Your task to perform on an android device: manage bookmarks in the chrome app Image 0: 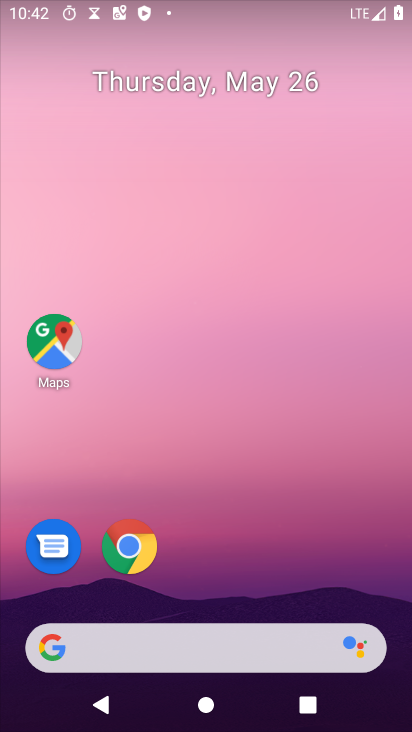
Step 0: drag from (308, 579) to (324, 175)
Your task to perform on an android device: manage bookmarks in the chrome app Image 1: 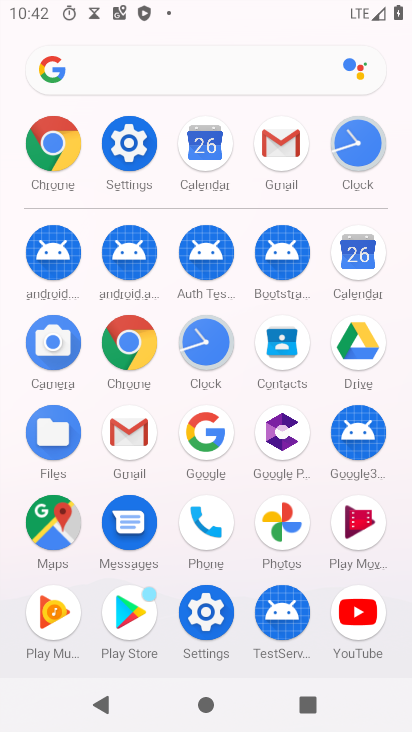
Step 1: click (124, 344)
Your task to perform on an android device: manage bookmarks in the chrome app Image 2: 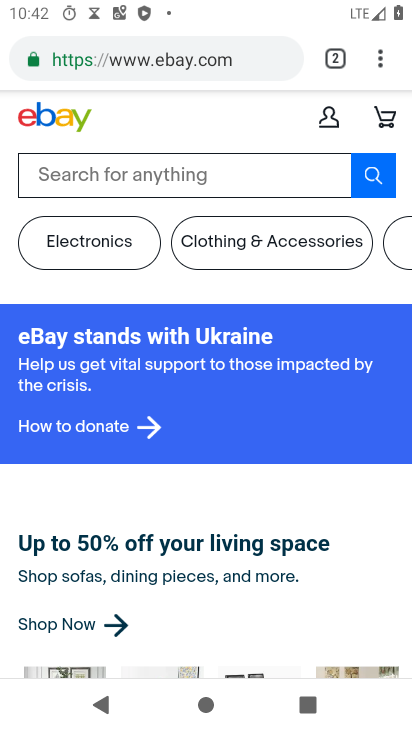
Step 2: drag from (384, 63) to (220, 218)
Your task to perform on an android device: manage bookmarks in the chrome app Image 3: 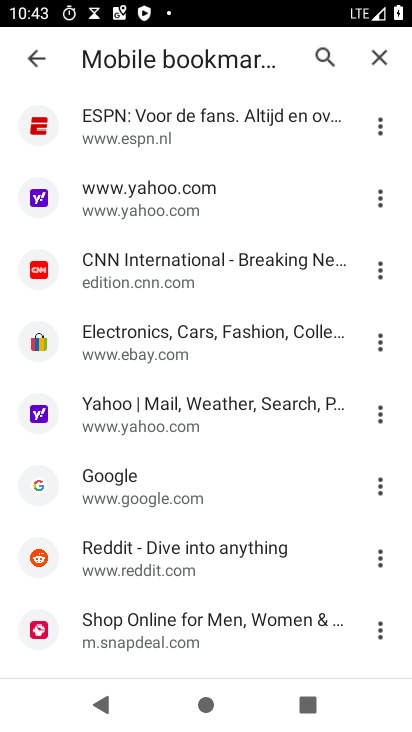
Step 3: click (378, 138)
Your task to perform on an android device: manage bookmarks in the chrome app Image 4: 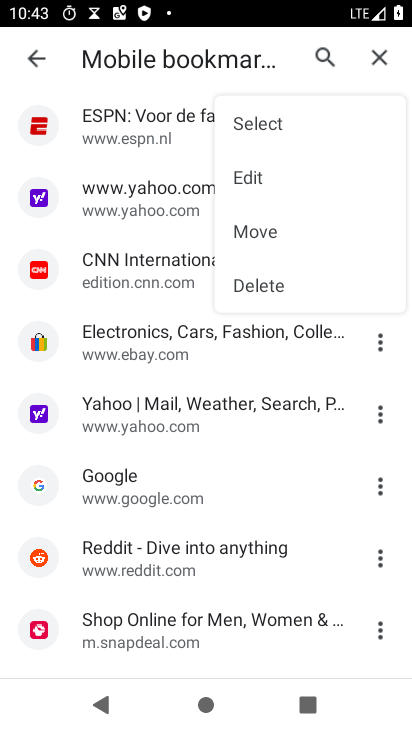
Step 4: click (272, 283)
Your task to perform on an android device: manage bookmarks in the chrome app Image 5: 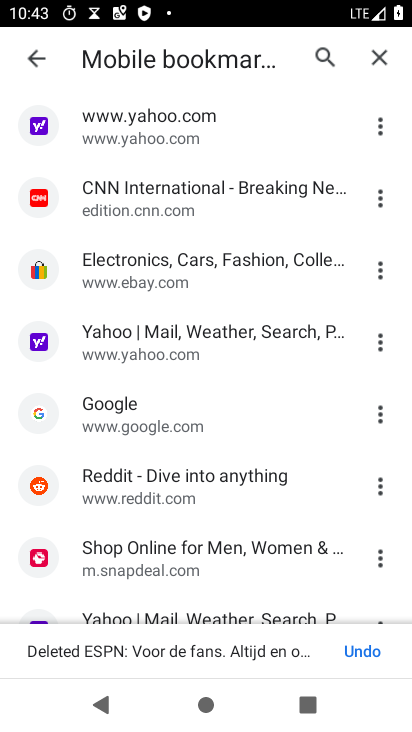
Step 5: task complete